Your task to perform on an android device: set the stopwatch Image 0: 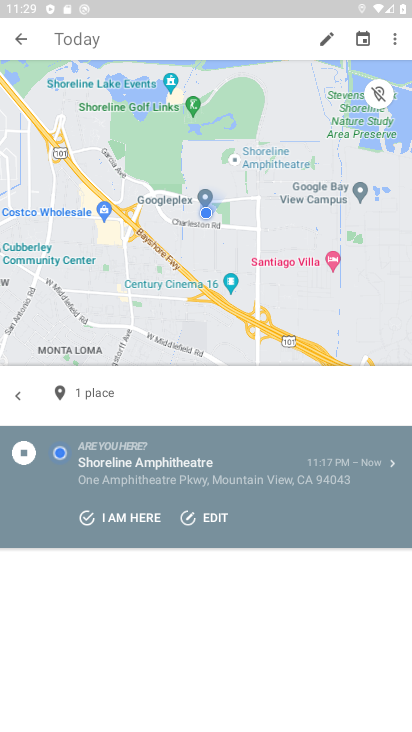
Step 0: press home button
Your task to perform on an android device: set the stopwatch Image 1: 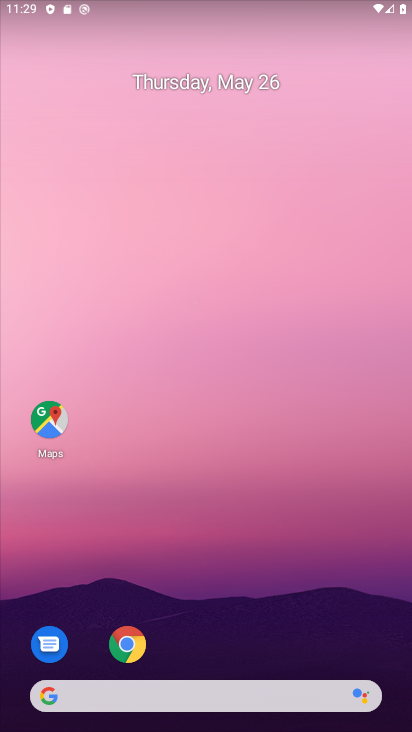
Step 1: drag from (251, 247) to (240, 42)
Your task to perform on an android device: set the stopwatch Image 2: 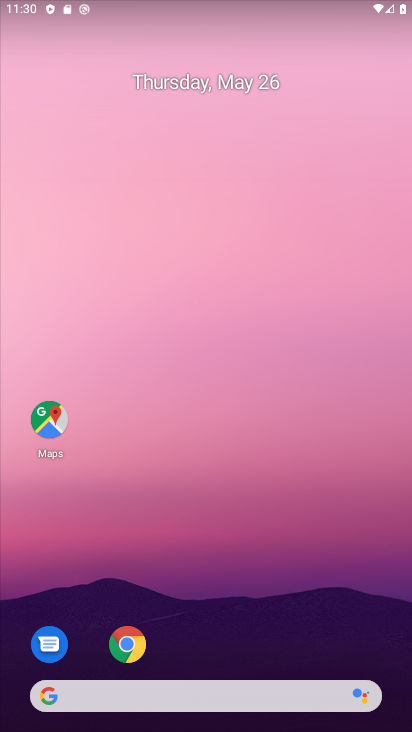
Step 2: drag from (238, 611) to (139, 27)
Your task to perform on an android device: set the stopwatch Image 3: 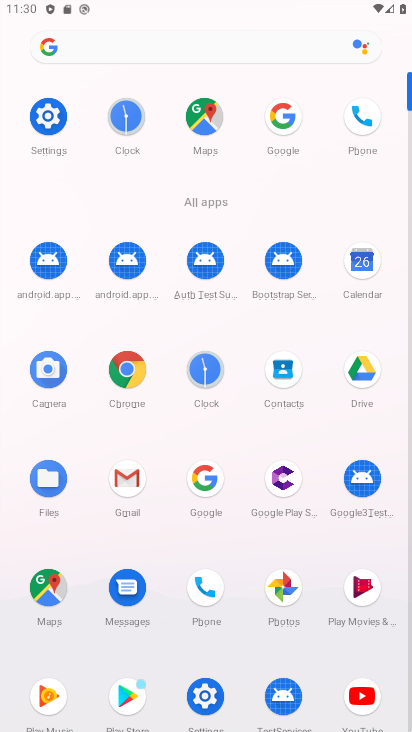
Step 3: click (119, 104)
Your task to perform on an android device: set the stopwatch Image 4: 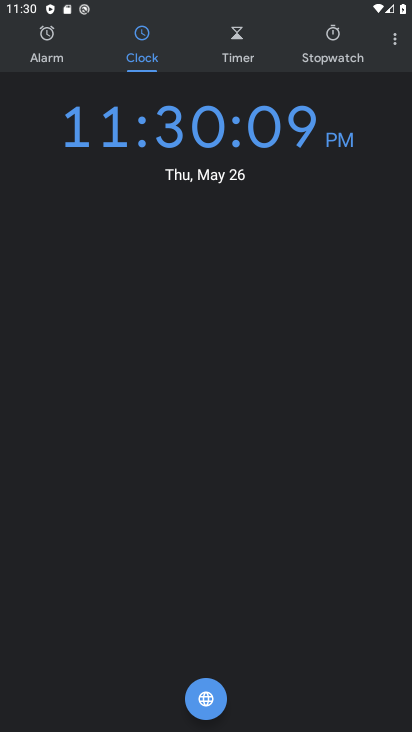
Step 4: click (328, 38)
Your task to perform on an android device: set the stopwatch Image 5: 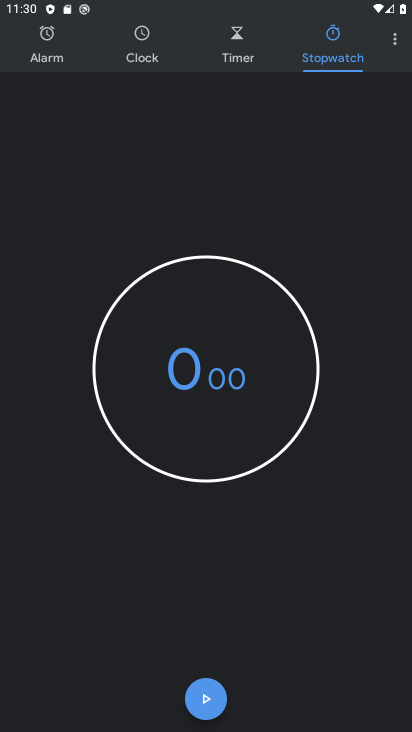
Step 5: click (211, 694)
Your task to perform on an android device: set the stopwatch Image 6: 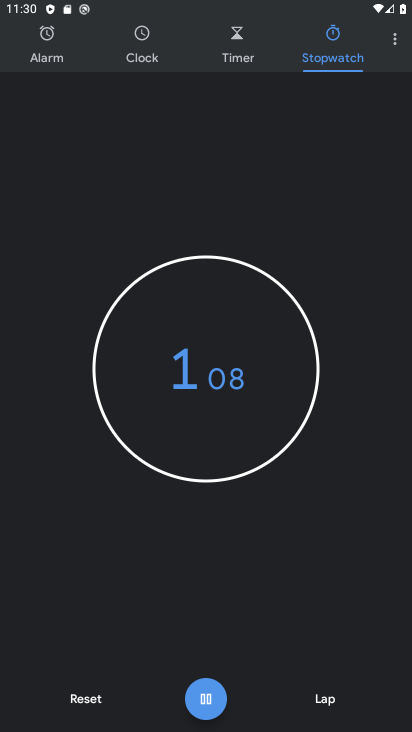
Step 6: task complete